Your task to perform on an android device: Open internet settings Image 0: 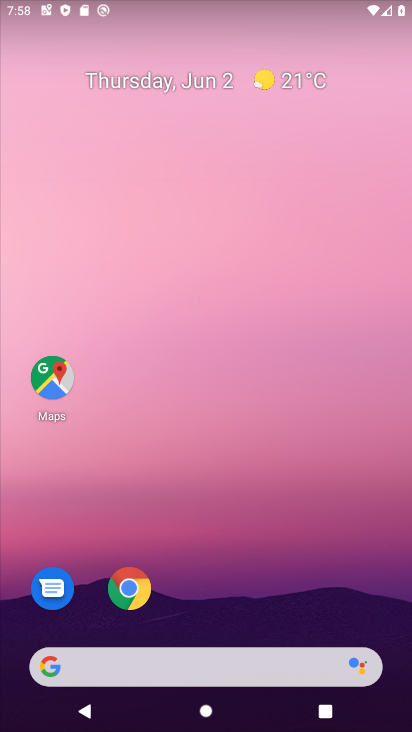
Step 0: drag from (213, 597) to (256, 121)
Your task to perform on an android device: Open internet settings Image 1: 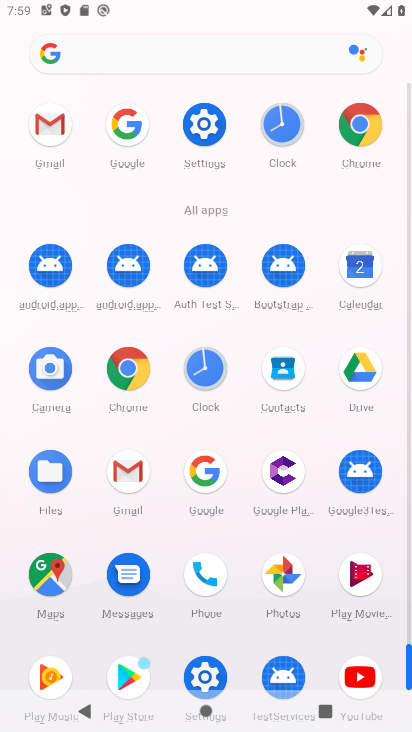
Step 1: click (203, 136)
Your task to perform on an android device: Open internet settings Image 2: 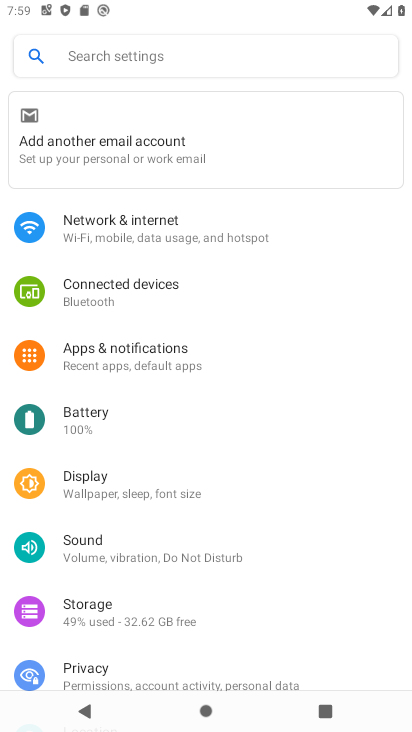
Step 2: click (172, 229)
Your task to perform on an android device: Open internet settings Image 3: 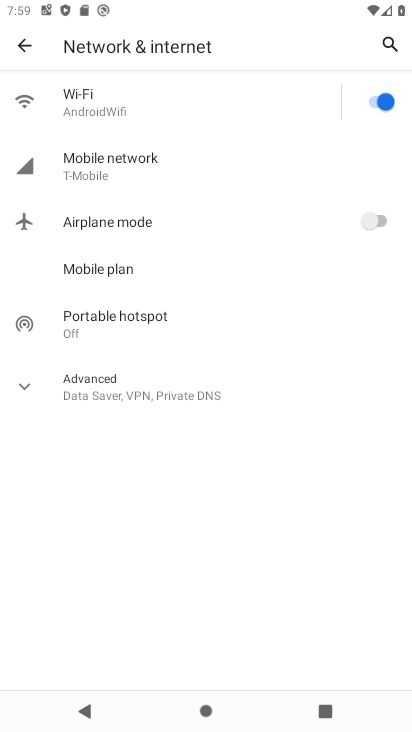
Step 3: click (156, 160)
Your task to perform on an android device: Open internet settings Image 4: 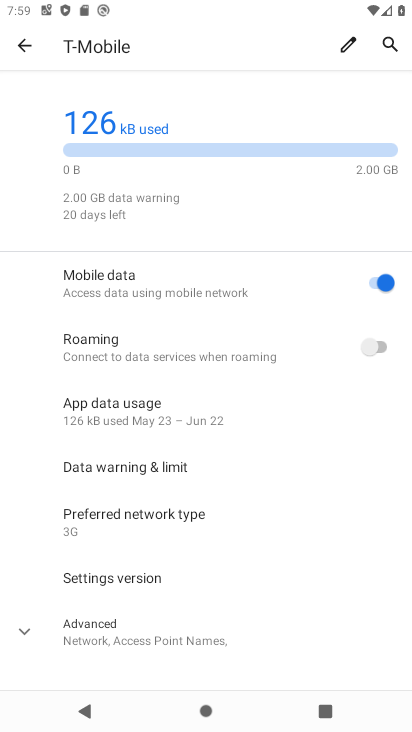
Step 4: task complete